Your task to perform on an android device: search for starred emails in the gmail app Image 0: 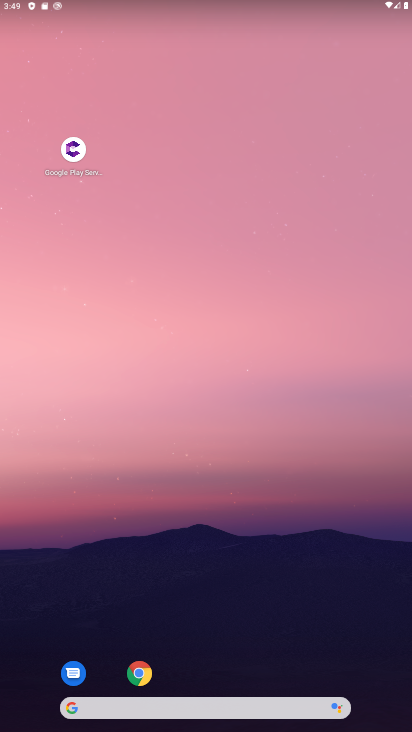
Step 0: drag from (208, 661) to (210, 92)
Your task to perform on an android device: search for starred emails in the gmail app Image 1: 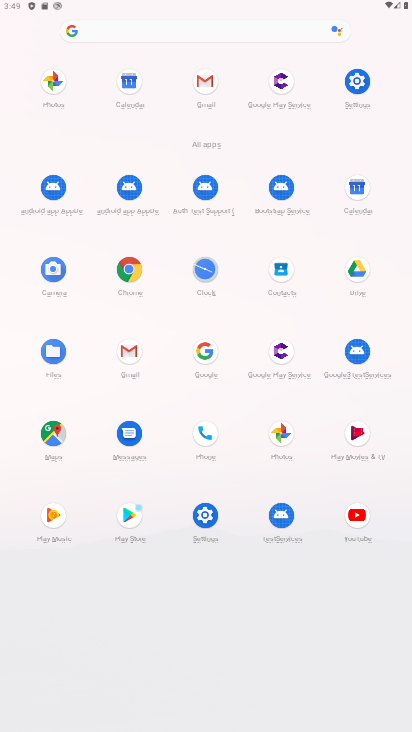
Step 1: click (137, 346)
Your task to perform on an android device: search for starred emails in the gmail app Image 2: 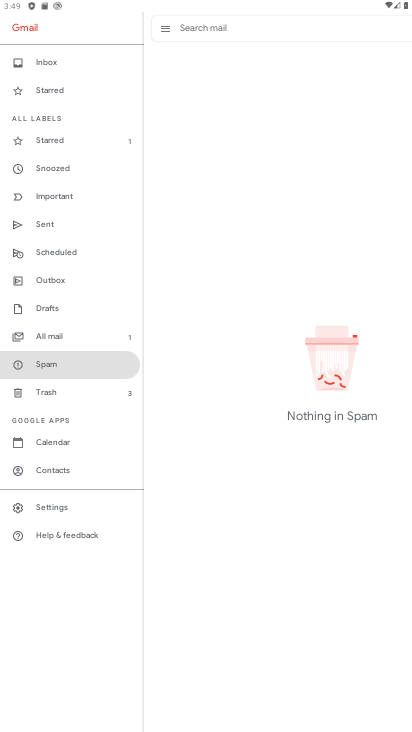
Step 2: click (41, 84)
Your task to perform on an android device: search for starred emails in the gmail app Image 3: 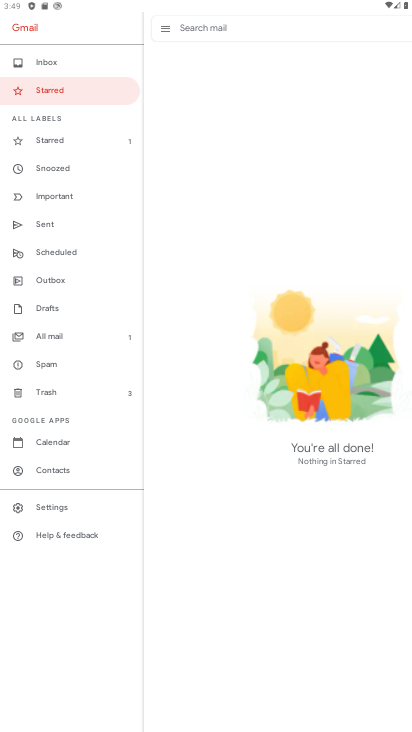
Step 3: task complete